Your task to perform on an android device: turn on airplane mode Image 0: 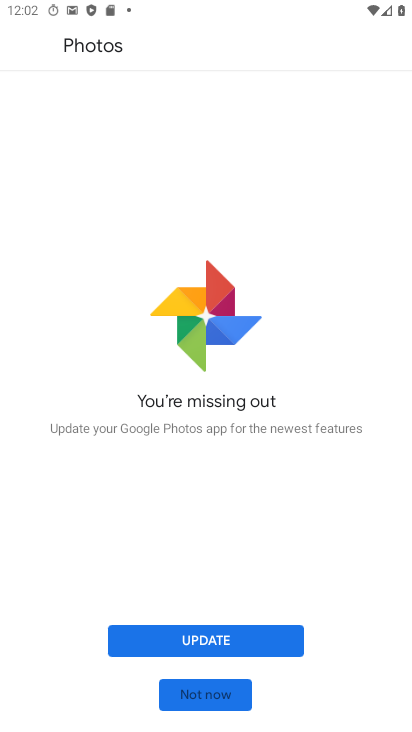
Step 0: press home button
Your task to perform on an android device: turn on airplane mode Image 1: 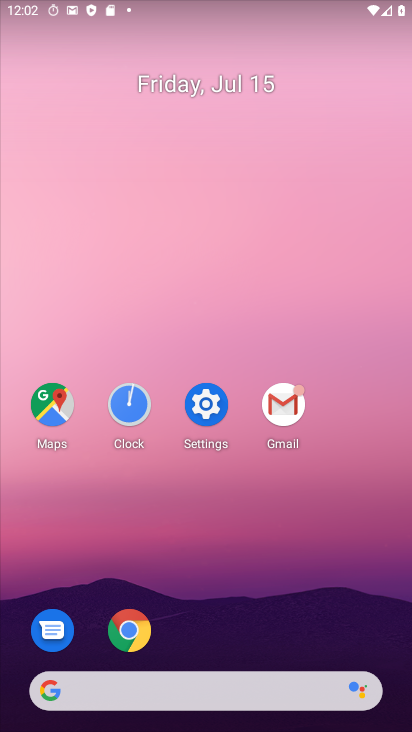
Step 1: drag from (372, 604) to (333, 110)
Your task to perform on an android device: turn on airplane mode Image 2: 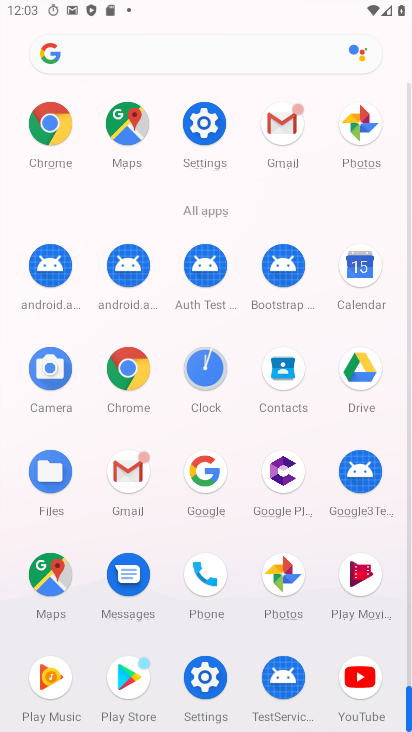
Step 2: click (225, 121)
Your task to perform on an android device: turn on airplane mode Image 3: 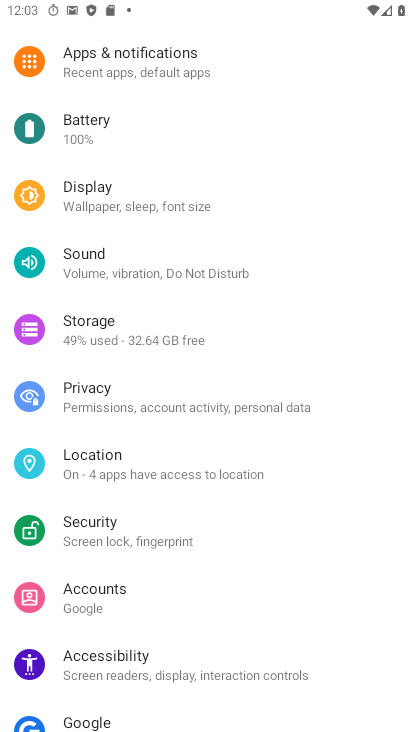
Step 3: drag from (272, 146) to (245, 462)
Your task to perform on an android device: turn on airplane mode Image 4: 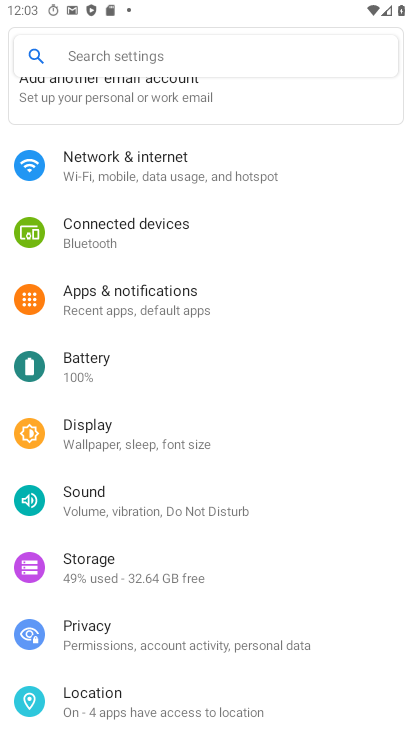
Step 4: click (110, 167)
Your task to perform on an android device: turn on airplane mode Image 5: 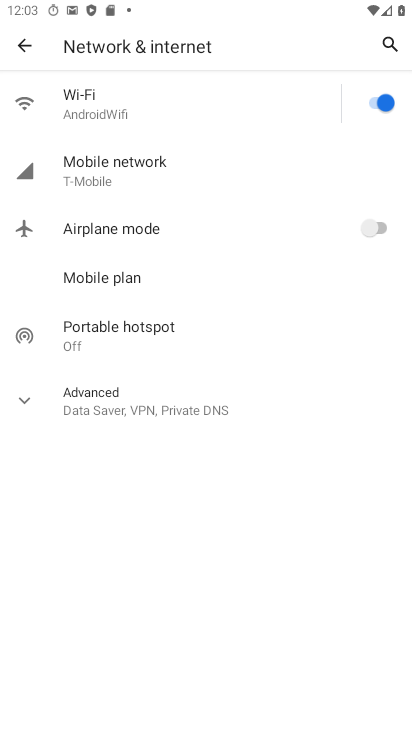
Step 5: click (375, 220)
Your task to perform on an android device: turn on airplane mode Image 6: 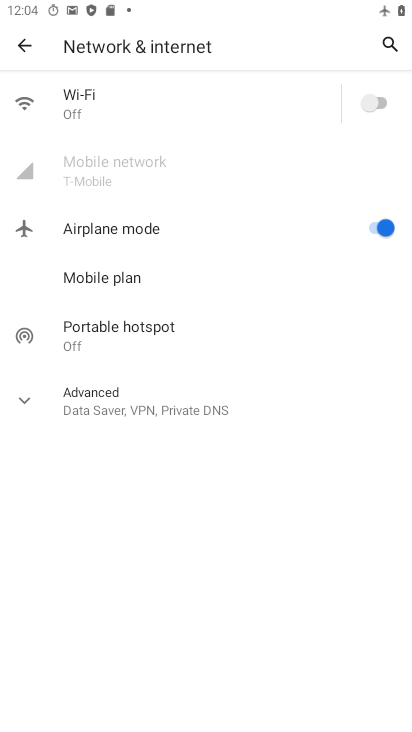
Step 6: task complete